Your task to perform on an android device: Open the phone app and click the voicemail tab. Image 0: 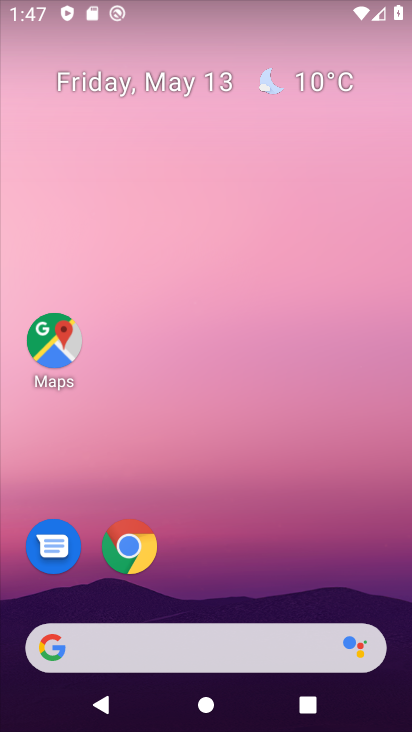
Step 0: drag from (186, 607) to (279, 129)
Your task to perform on an android device: Open the phone app and click the voicemail tab. Image 1: 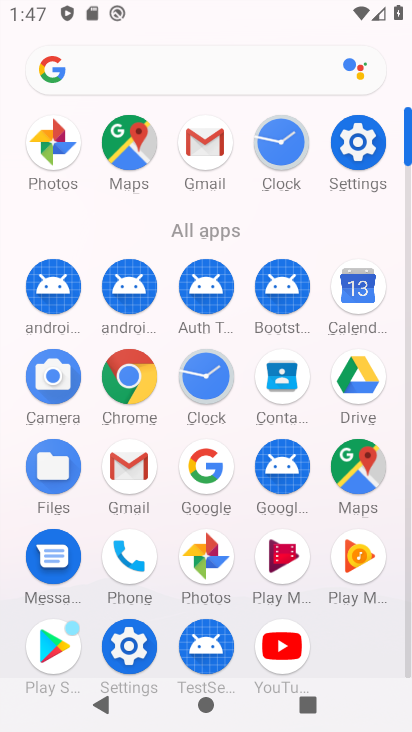
Step 1: click (133, 569)
Your task to perform on an android device: Open the phone app and click the voicemail tab. Image 2: 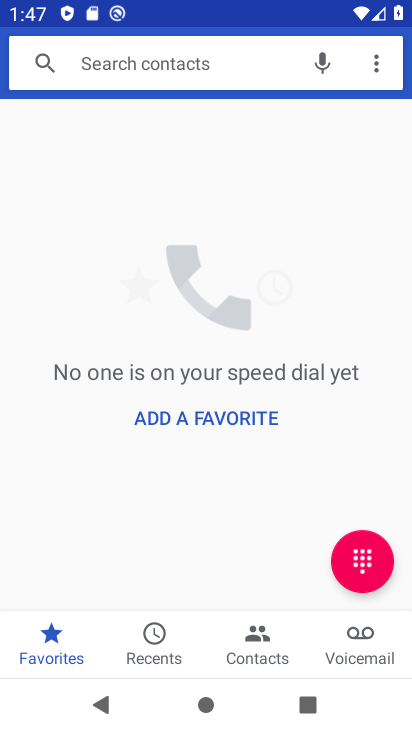
Step 2: click (389, 640)
Your task to perform on an android device: Open the phone app and click the voicemail tab. Image 3: 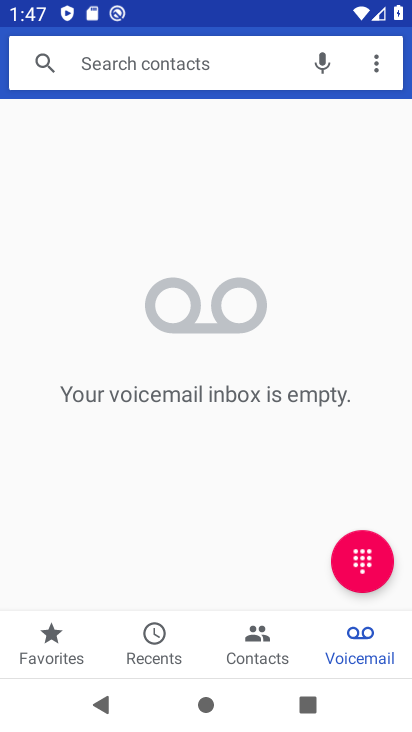
Step 3: task complete